Your task to perform on an android device: clear all cookies in the chrome app Image 0: 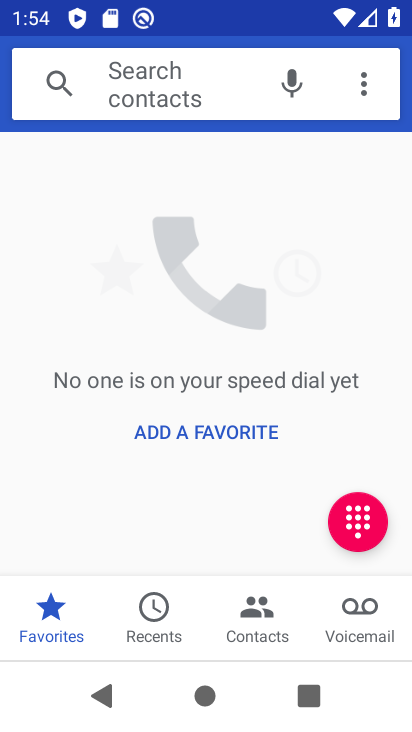
Step 0: press back button
Your task to perform on an android device: clear all cookies in the chrome app Image 1: 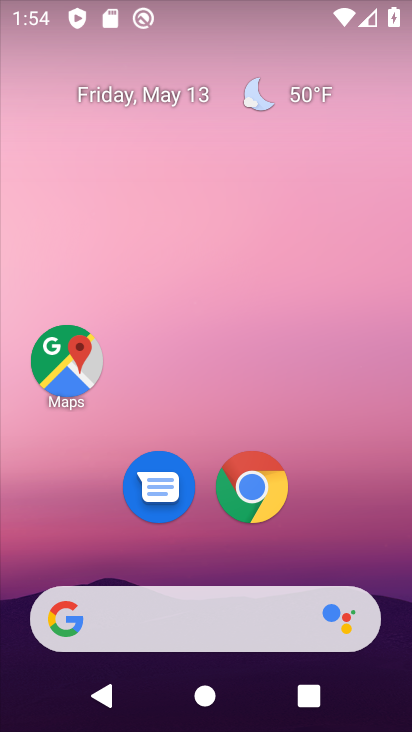
Step 1: click (268, 486)
Your task to perform on an android device: clear all cookies in the chrome app Image 2: 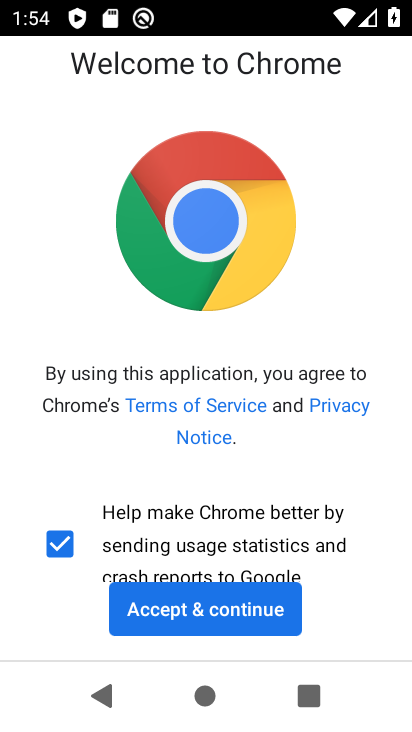
Step 2: click (266, 609)
Your task to perform on an android device: clear all cookies in the chrome app Image 3: 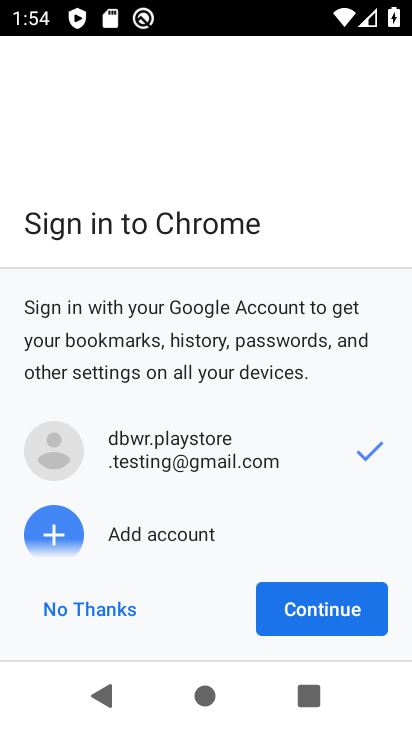
Step 3: click (359, 619)
Your task to perform on an android device: clear all cookies in the chrome app Image 4: 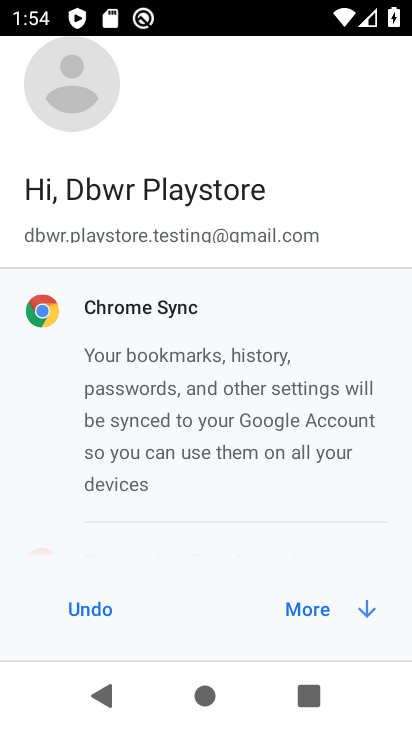
Step 4: click (334, 612)
Your task to perform on an android device: clear all cookies in the chrome app Image 5: 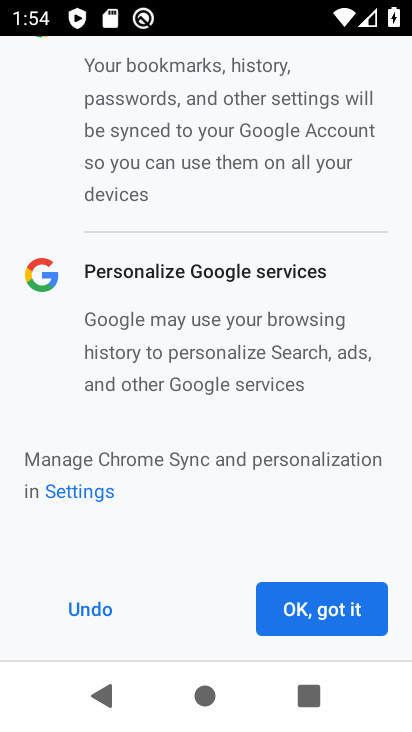
Step 5: click (335, 609)
Your task to perform on an android device: clear all cookies in the chrome app Image 6: 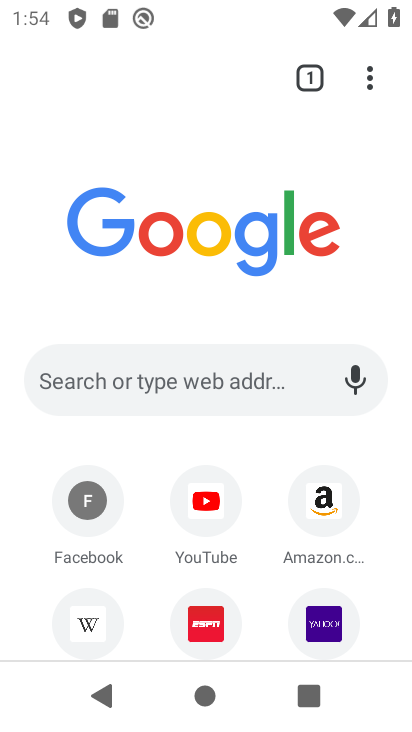
Step 6: drag from (375, 77) to (262, 559)
Your task to perform on an android device: clear all cookies in the chrome app Image 7: 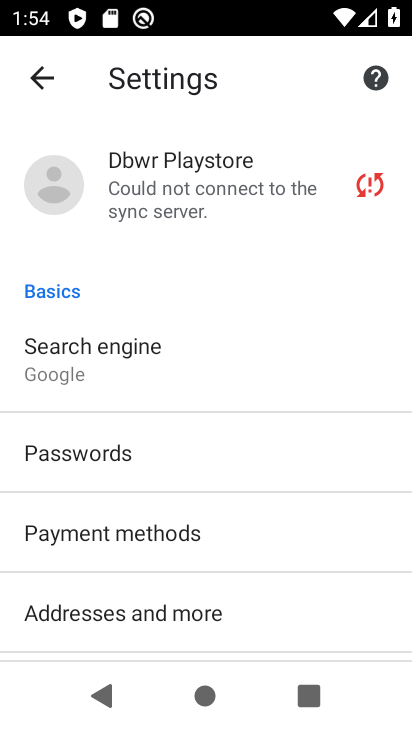
Step 7: drag from (181, 573) to (292, 232)
Your task to perform on an android device: clear all cookies in the chrome app Image 8: 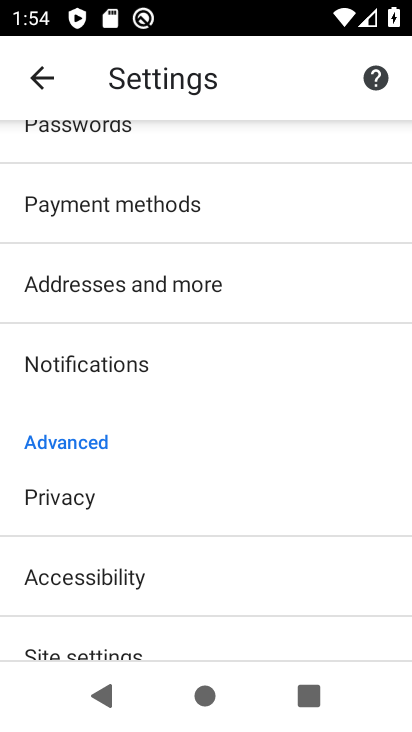
Step 8: click (72, 502)
Your task to perform on an android device: clear all cookies in the chrome app Image 9: 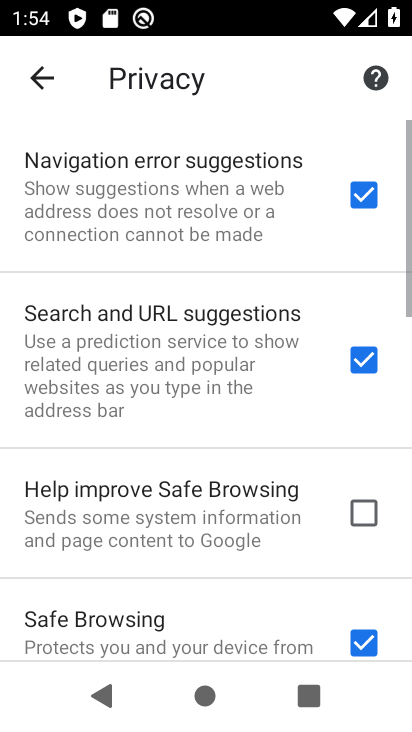
Step 9: drag from (226, 627) to (341, 132)
Your task to perform on an android device: clear all cookies in the chrome app Image 10: 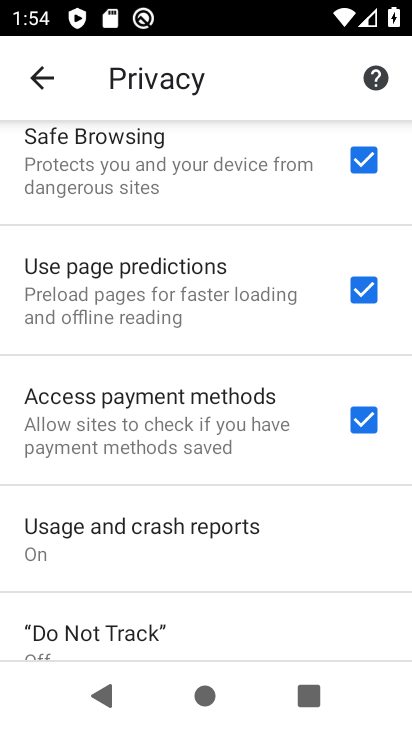
Step 10: drag from (230, 593) to (298, 250)
Your task to perform on an android device: clear all cookies in the chrome app Image 11: 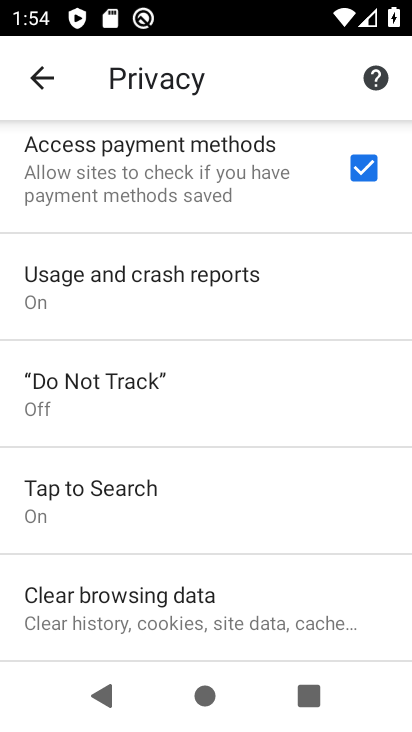
Step 11: click (149, 610)
Your task to perform on an android device: clear all cookies in the chrome app Image 12: 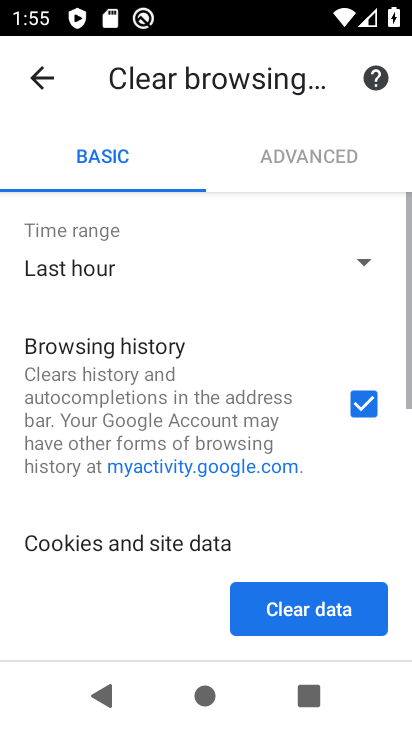
Step 12: drag from (121, 489) to (213, 459)
Your task to perform on an android device: clear all cookies in the chrome app Image 13: 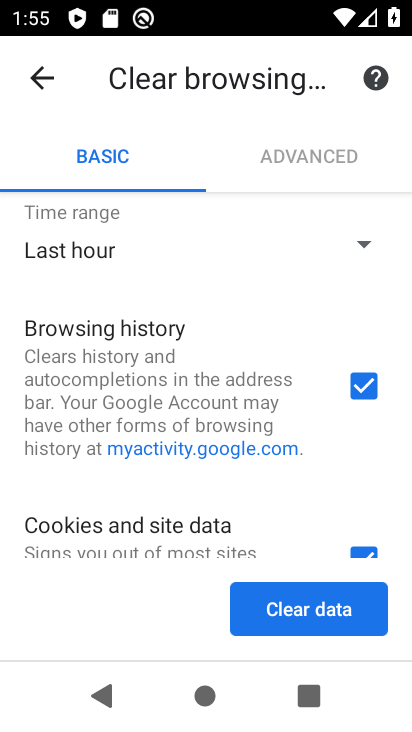
Step 13: click (364, 372)
Your task to perform on an android device: clear all cookies in the chrome app Image 14: 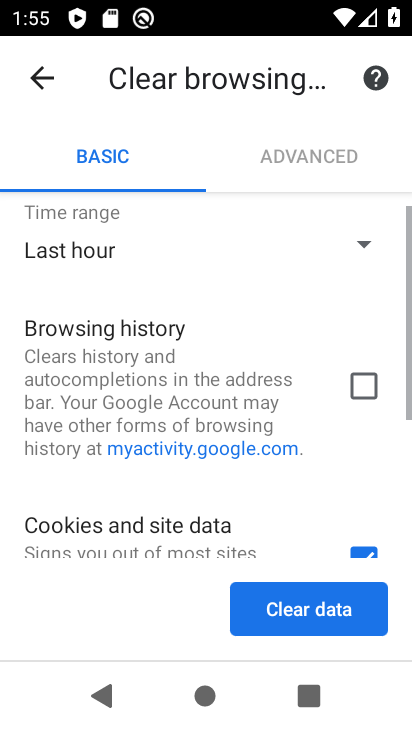
Step 14: drag from (185, 485) to (275, 188)
Your task to perform on an android device: clear all cookies in the chrome app Image 15: 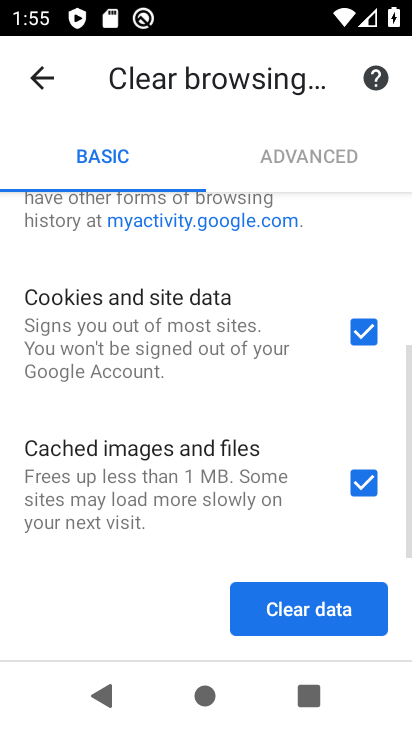
Step 15: click (364, 480)
Your task to perform on an android device: clear all cookies in the chrome app Image 16: 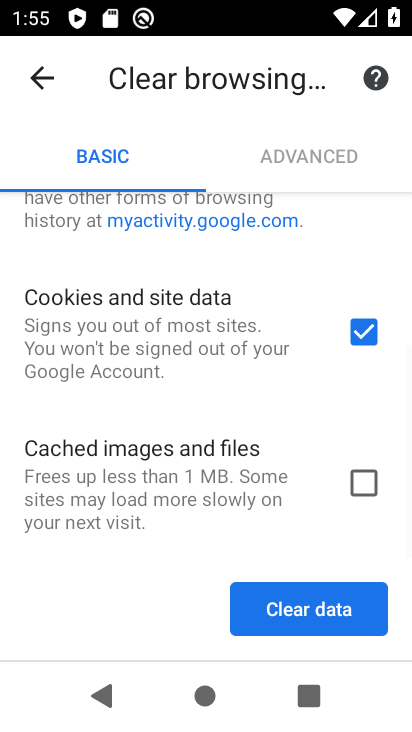
Step 16: click (302, 609)
Your task to perform on an android device: clear all cookies in the chrome app Image 17: 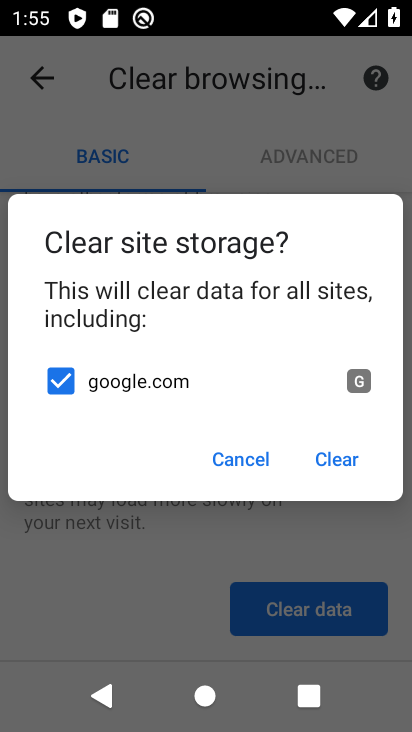
Step 17: click (315, 444)
Your task to perform on an android device: clear all cookies in the chrome app Image 18: 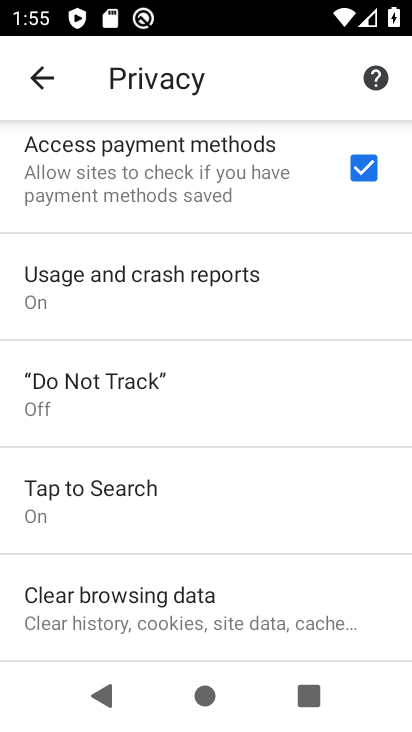
Step 18: task complete